Your task to perform on an android device: Go to wifi settings Image 0: 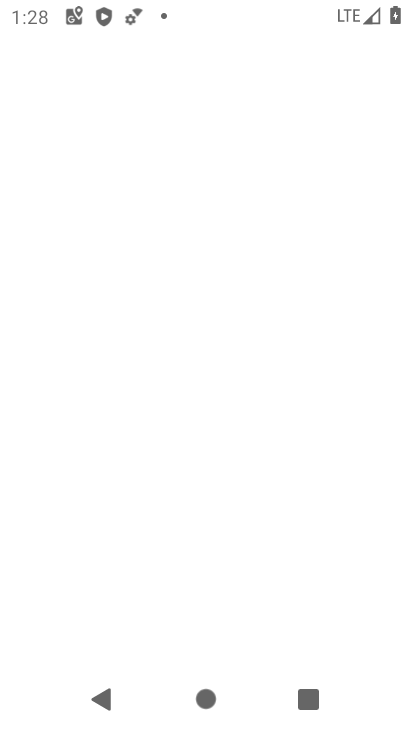
Step 0: press home button
Your task to perform on an android device: Go to wifi settings Image 1: 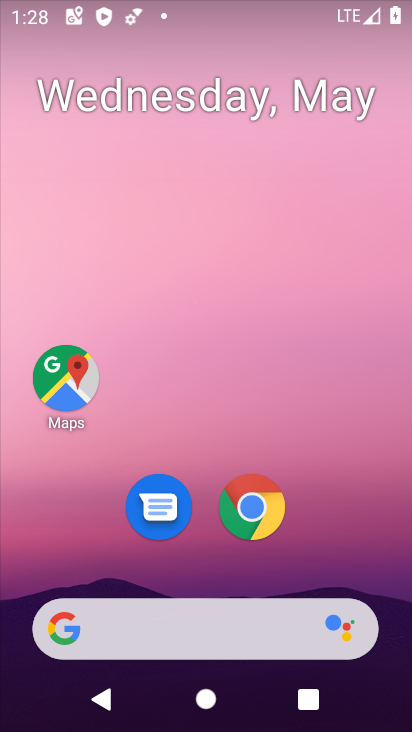
Step 1: drag from (380, 571) to (252, 150)
Your task to perform on an android device: Go to wifi settings Image 2: 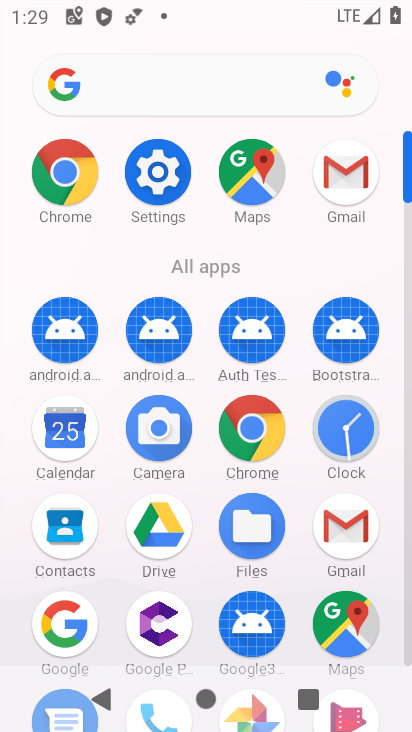
Step 2: click (155, 160)
Your task to perform on an android device: Go to wifi settings Image 3: 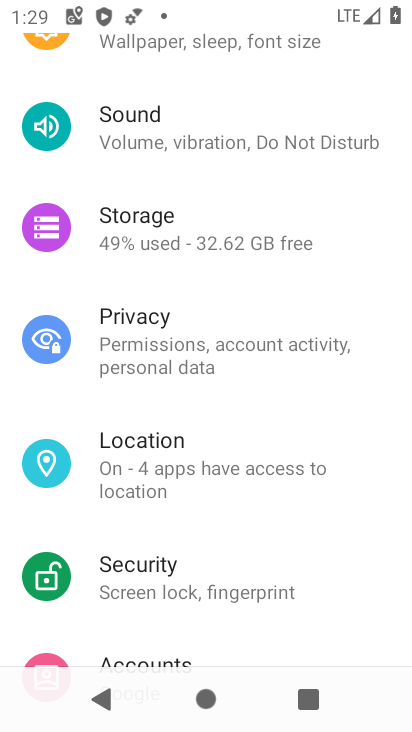
Step 3: drag from (217, 95) to (286, 626)
Your task to perform on an android device: Go to wifi settings Image 4: 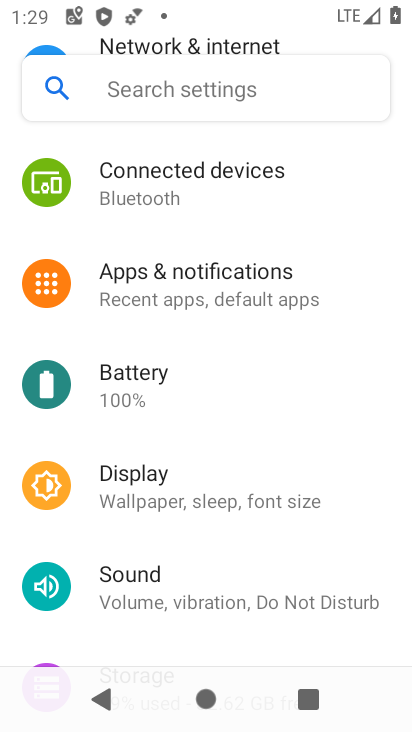
Step 4: drag from (250, 225) to (285, 586)
Your task to perform on an android device: Go to wifi settings Image 5: 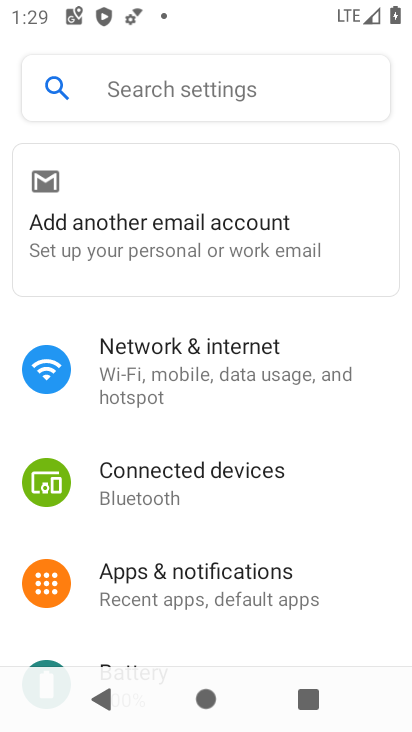
Step 5: click (255, 349)
Your task to perform on an android device: Go to wifi settings Image 6: 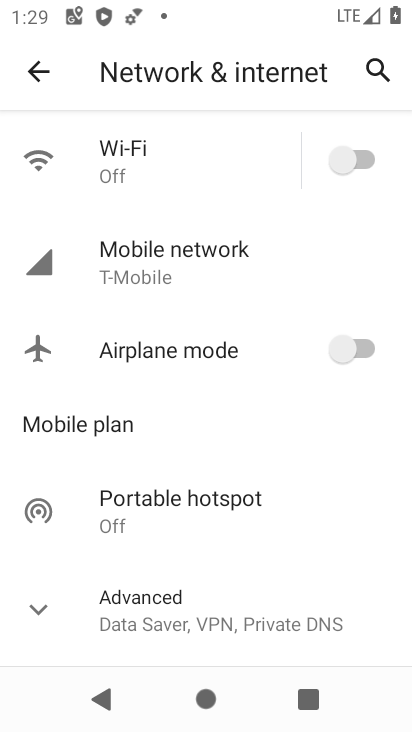
Step 6: click (161, 165)
Your task to perform on an android device: Go to wifi settings Image 7: 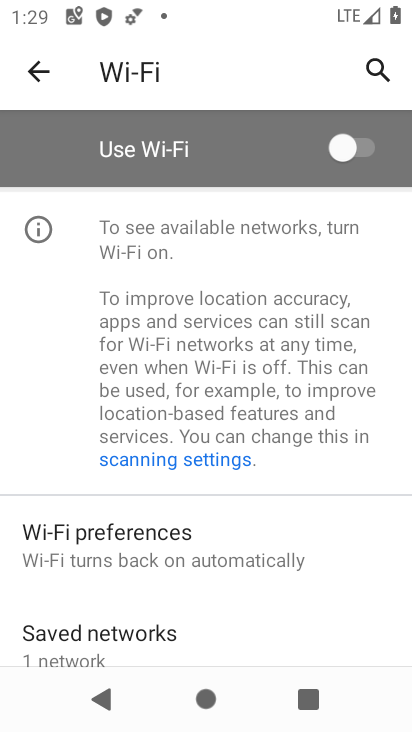
Step 7: task complete